Your task to perform on an android device: Show me popular games on the Play Store Image 0: 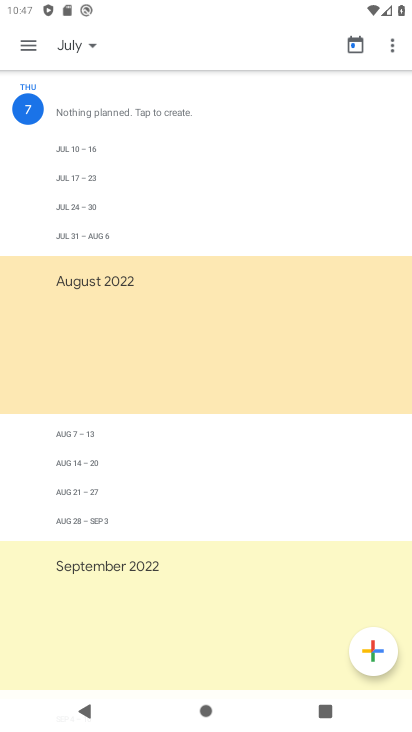
Step 0: press home button
Your task to perform on an android device: Show me popular games on the Play Store Image 1: 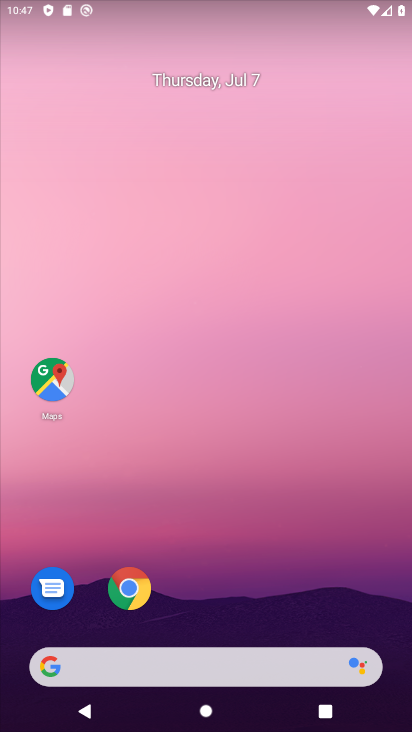
Step 1: drag from (179, 671) to (270, 77)
Your task to perform on an android device: Show me popular games on the Play Store Image 2: 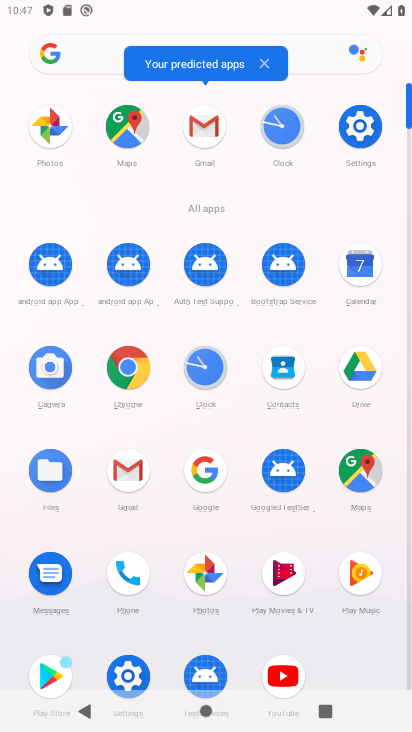
Step 2: click (52, 677)
Your task to perform on an android device: Show me popular games on the Play Store Image 3: 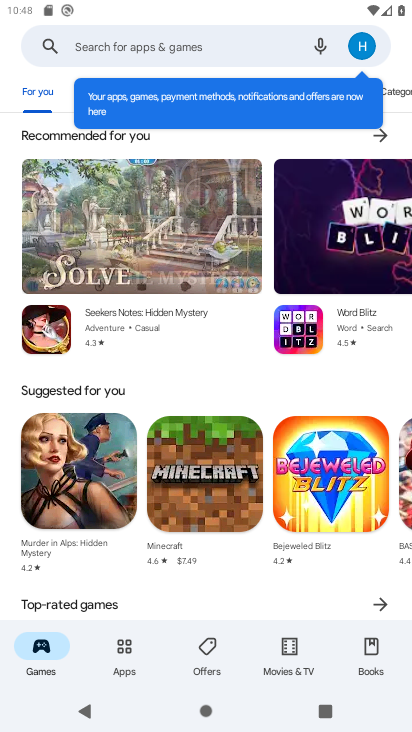
Step 3: drag from (130, 575) to (272, 143)
Your task to perform on an android device: Show me popular games on the Play Store Image 4: 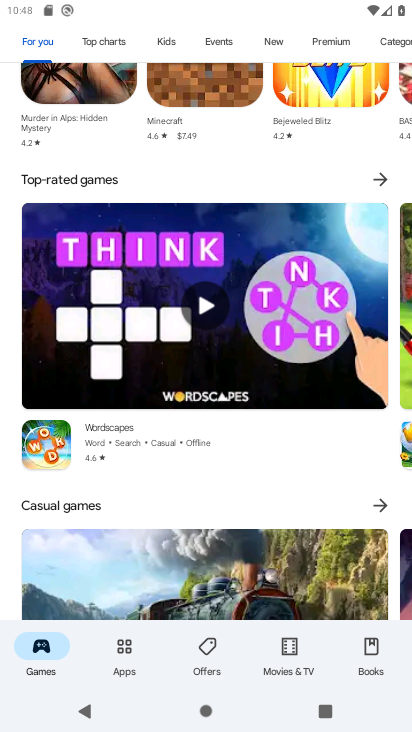
Step 4: click (373, 172)
Your task to perform on an android device: Show me popular games on the Play Store Image 5: 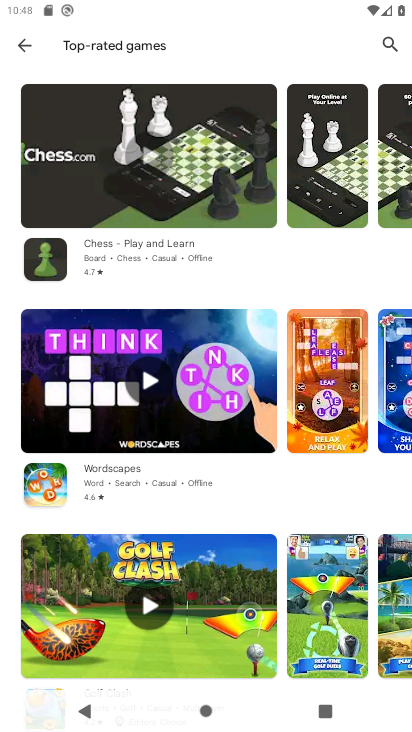
Step 5: task complete